Your task to perform on an android device: Show the shopping cart on amazon.com. Image 0: 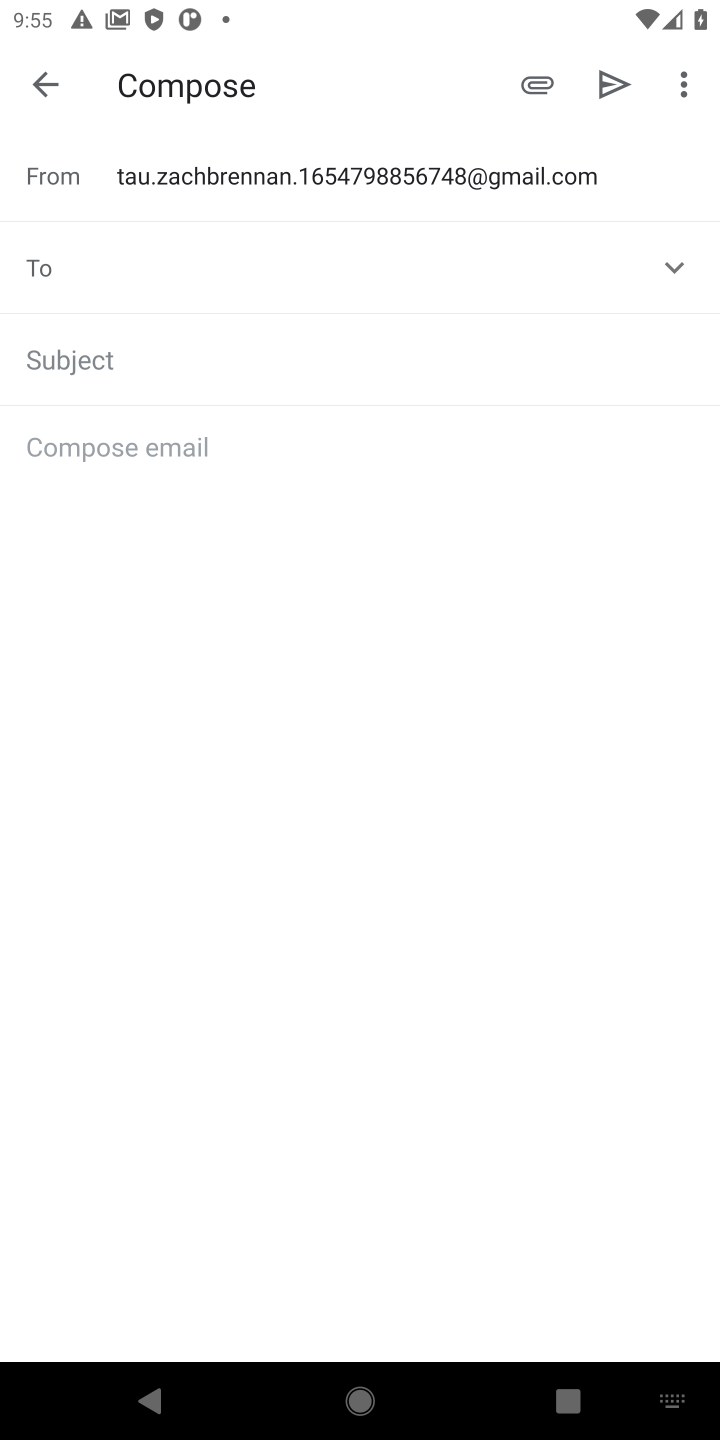
Step 0: press home button
Your task to perform on an android device: Show the shopping cart on amazon.com. Image 1: 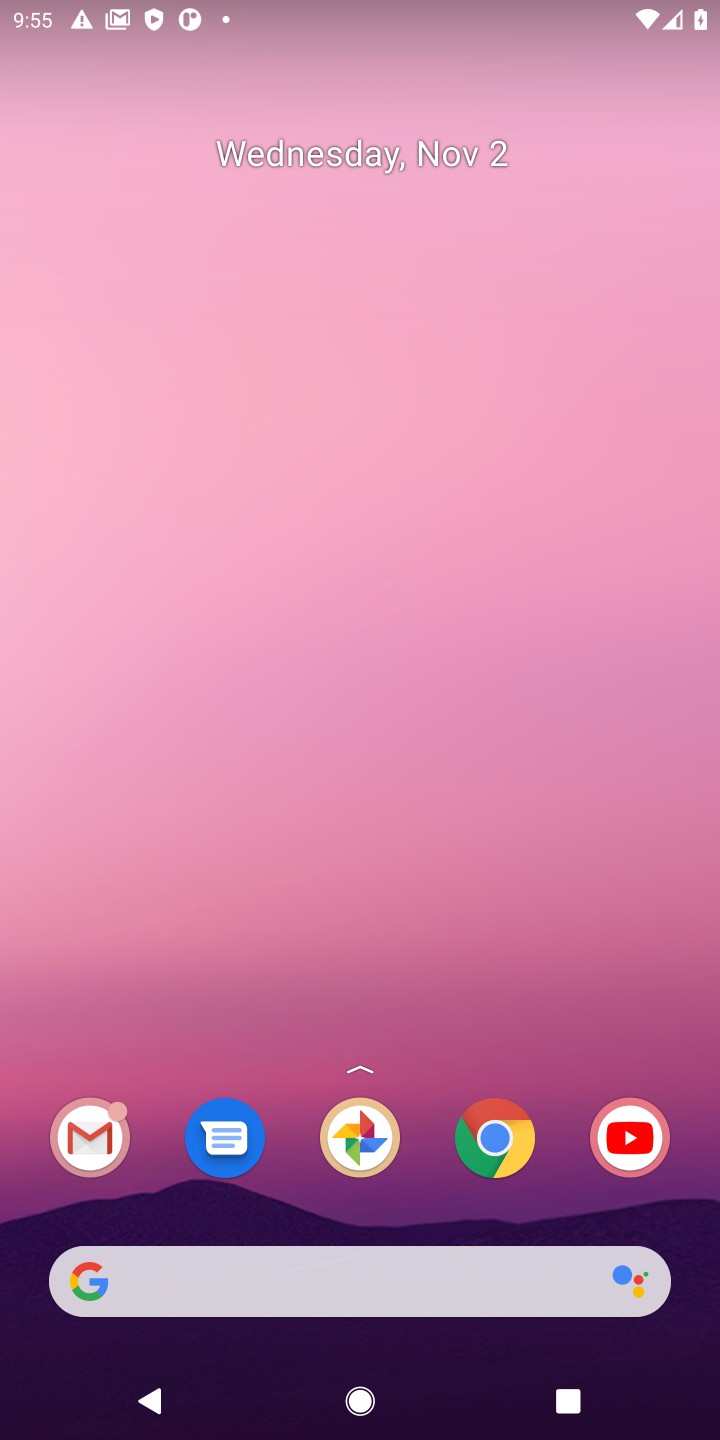
Step 1: click (282, 1272)
Your task to perform on an android device: Show the shopping cart on amazon.com. Image 2: 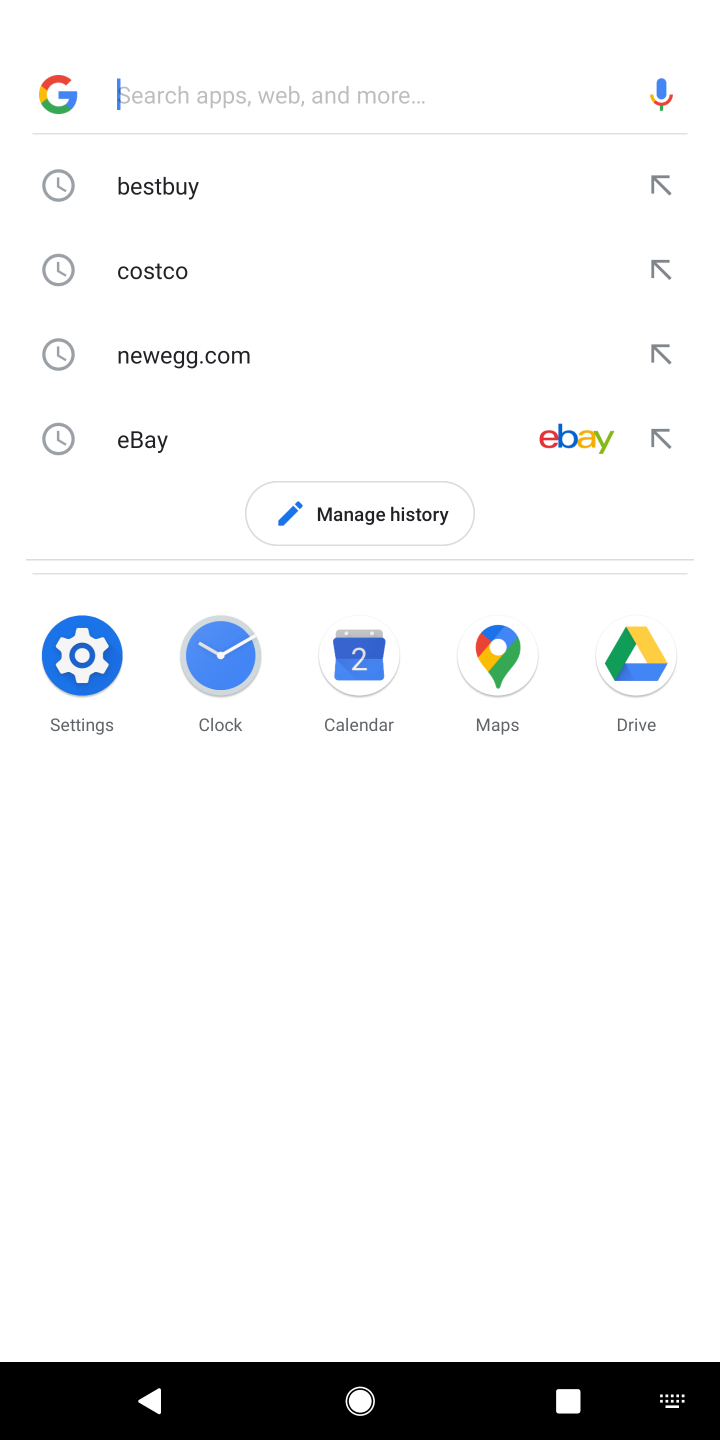
Step 2: type "amazon"
Your task to perform on an android device: Show the shopping cart on amazon.com. Image 3: 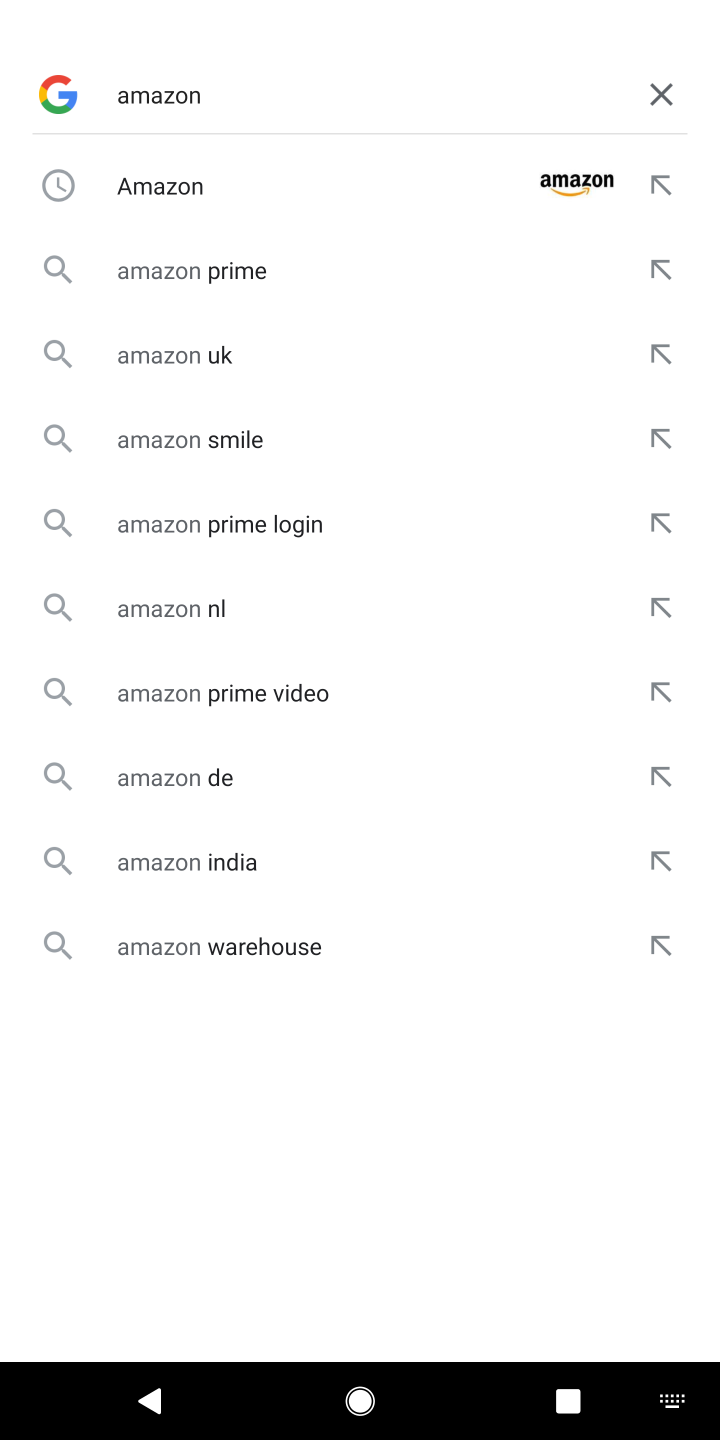
Step 3: click (185, 189)
Your task to perform on an android device: Show the shopping cart on amazon.com. Image 4: 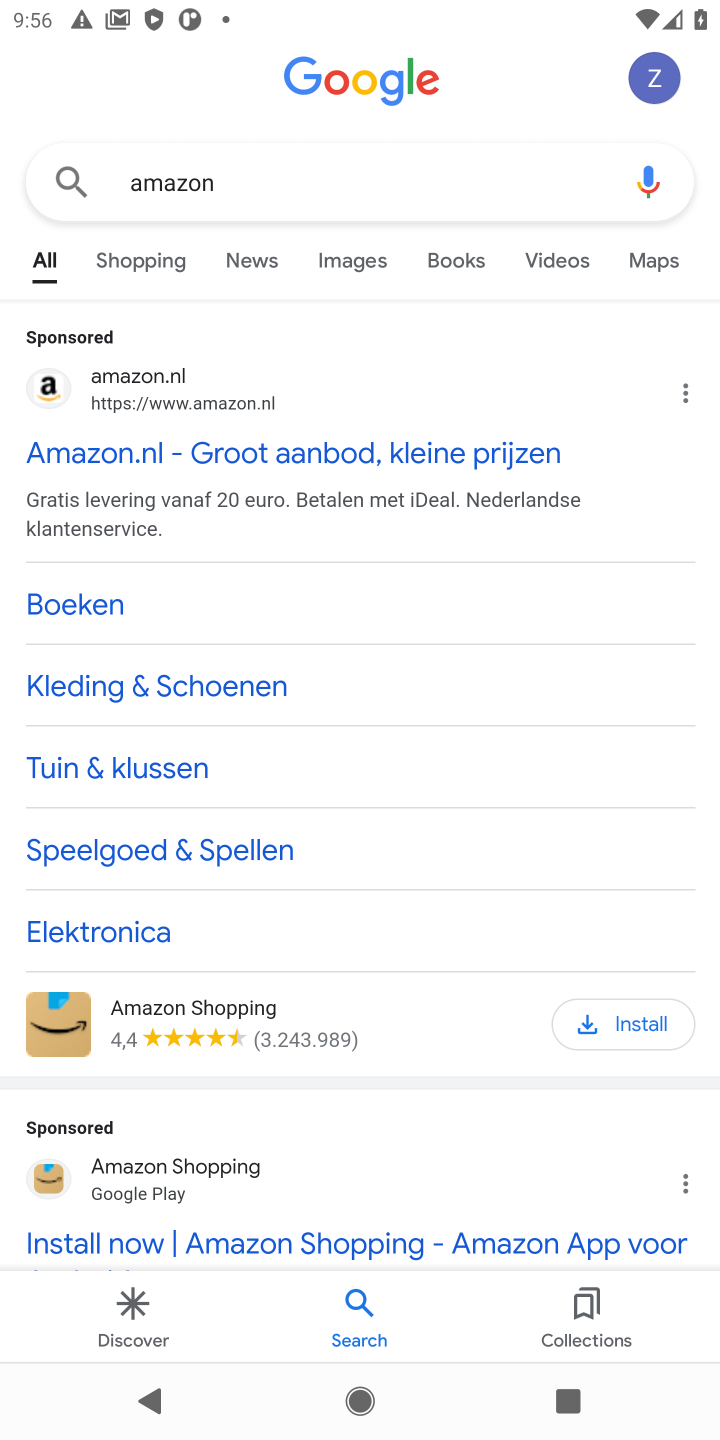
Step 4: click (109, 445)
Your task to perform on an android device: Show the shopping cart on amazon.com. Image 5: 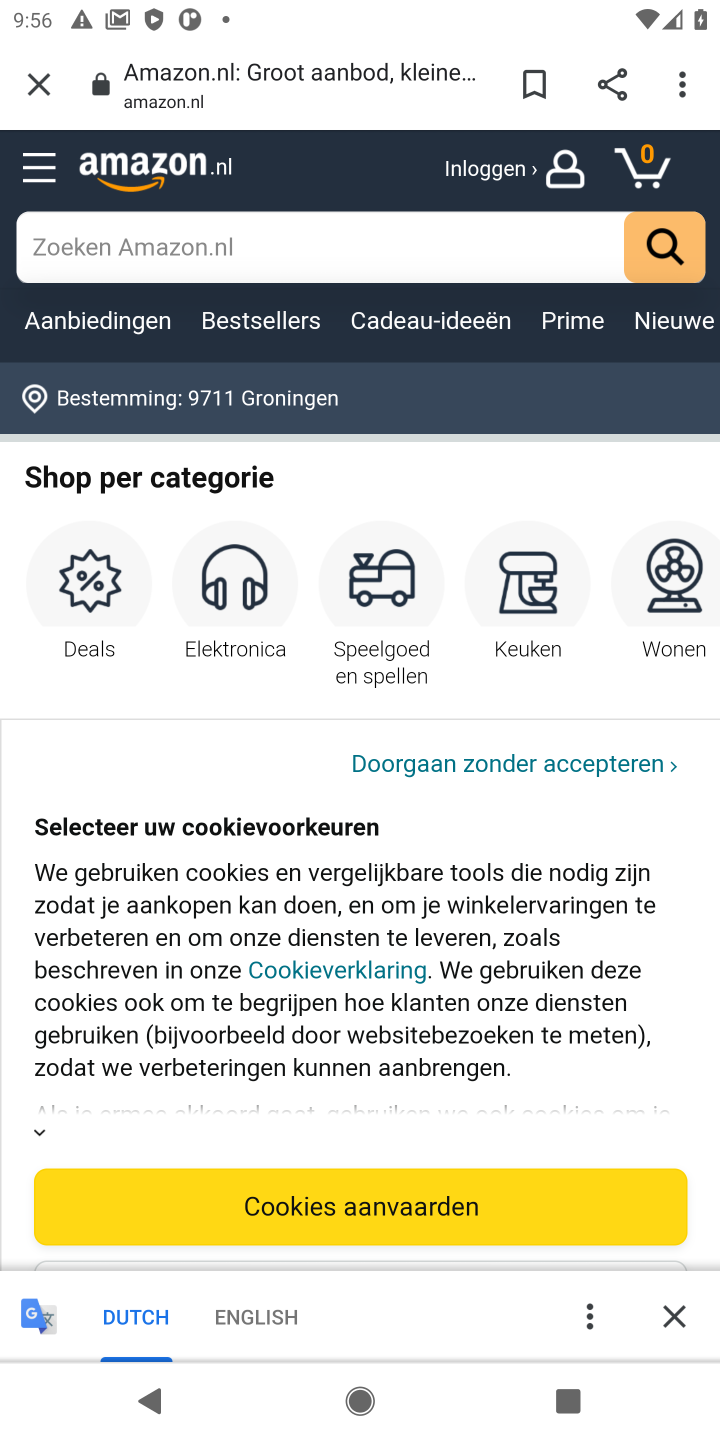
Step 5: click (407, 1196)
Your task to perform on an android device: Show the shopping cart on amazon.com. Image 6: 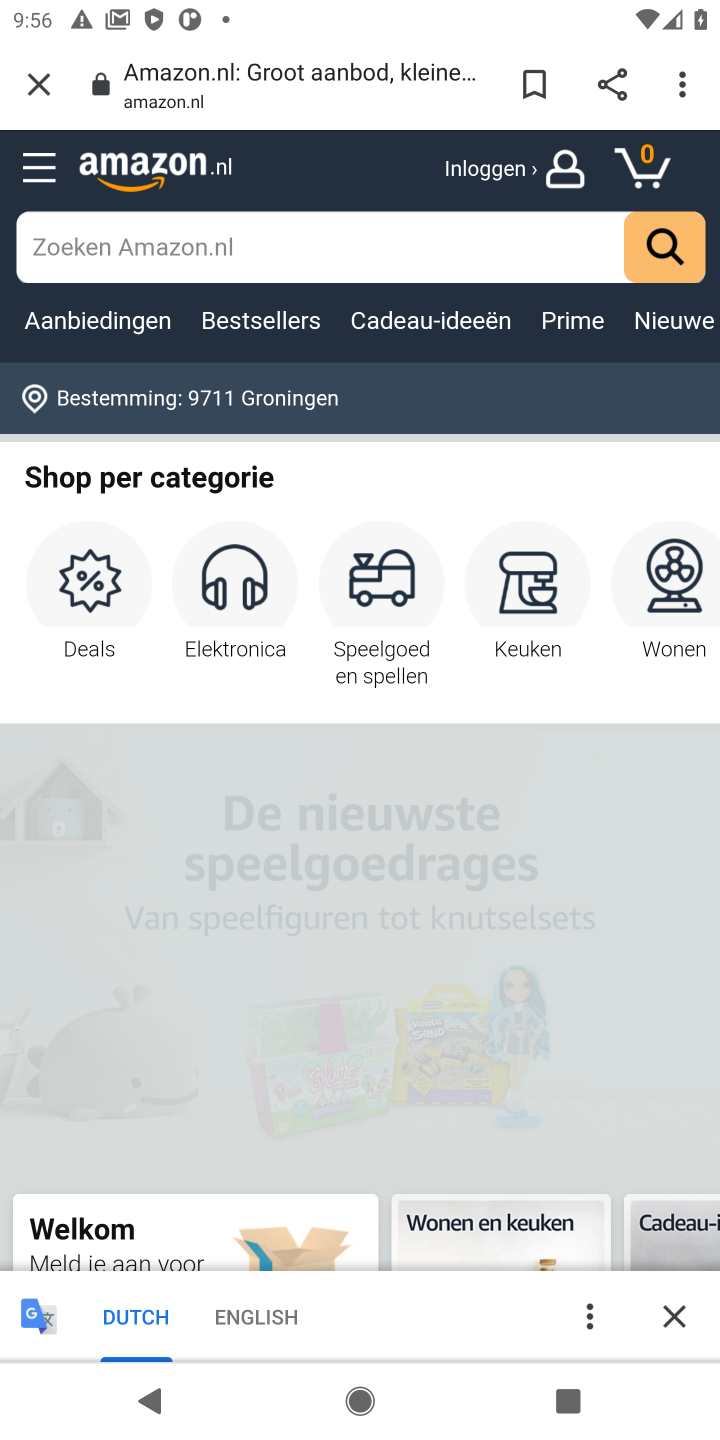
Step 6: task complete